Your task to perform on an android device: Add bose soundlink mini to the cart on ebay.com, then select checkout. Image 0: 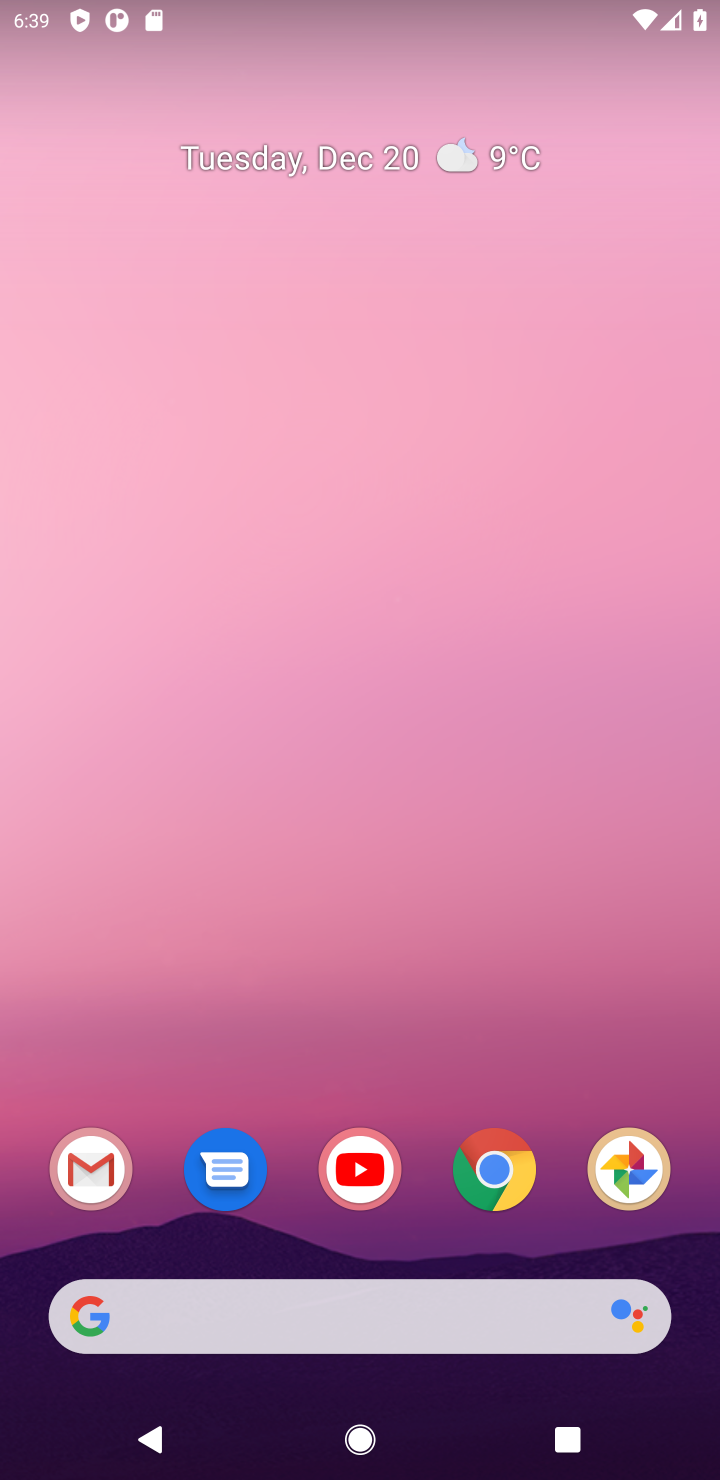
Step 0: click (482, 1166)
Your task to perform on an android device: Add bose soundlink mini to the cart on ebay.com, then select checkout. Image 1: 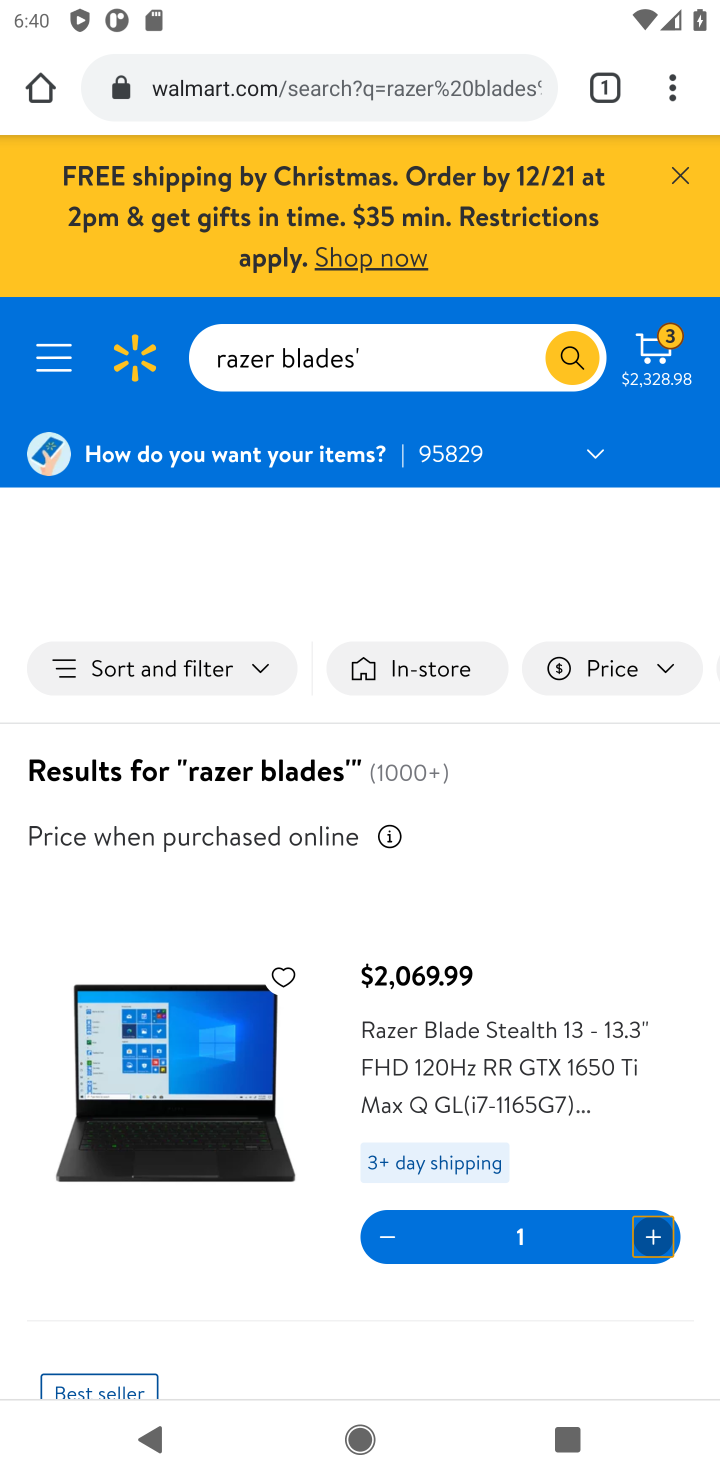
Step 1: click (369, 90)
Your task to perform on an android device: Add bose soundlink mini to the cart on ebay.com, then select checkout. Image 2: 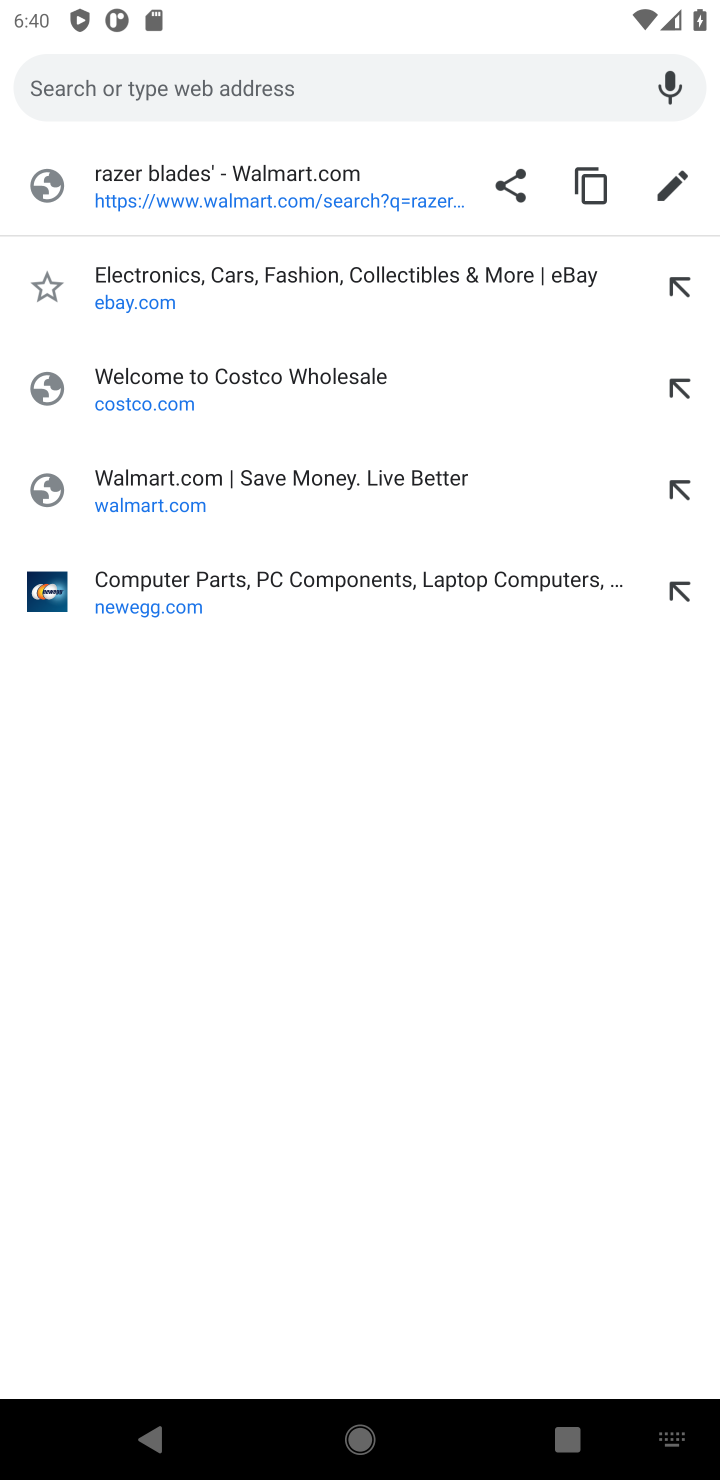
Step 2: click (313, 275)
Your task to perform on an android device: Add bose soundlink mini to the cart on ebay.com, then select checkout. Image 3: 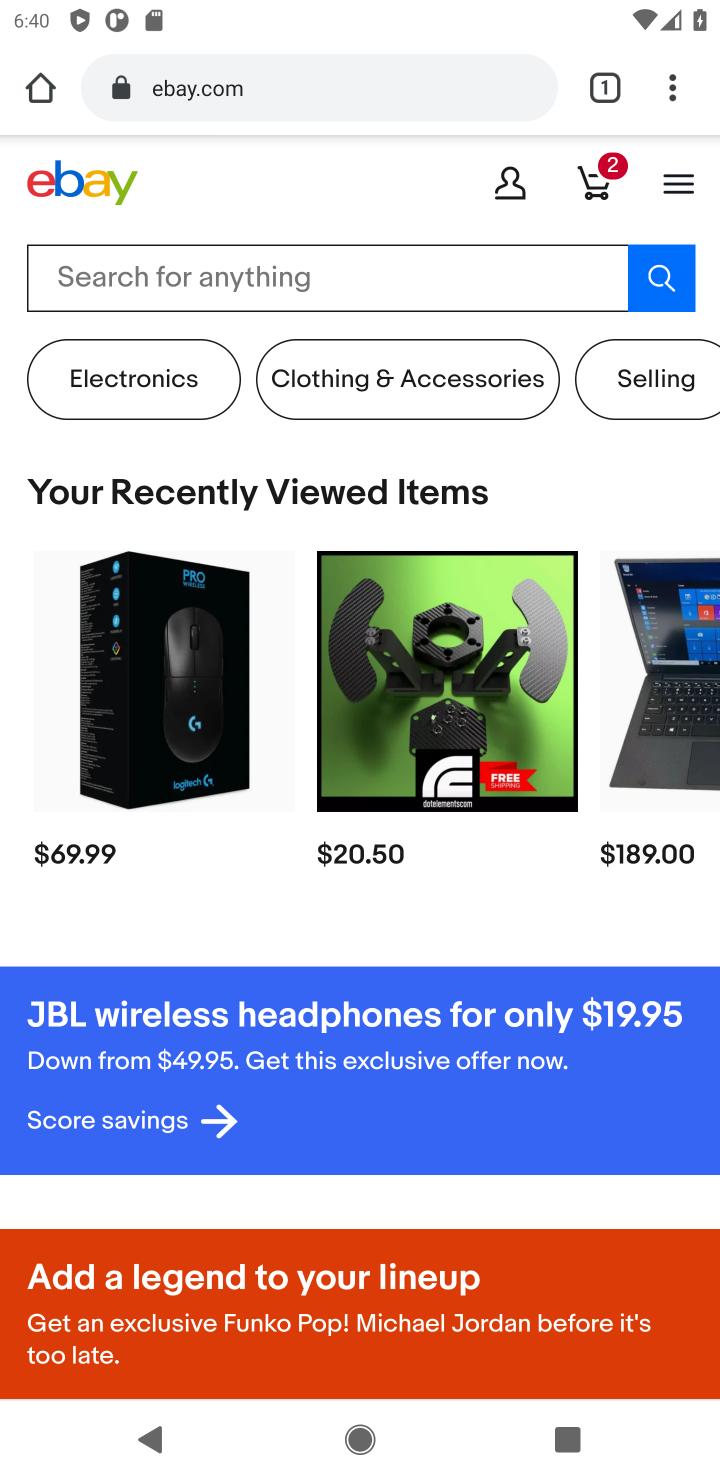
Step 3: click (314, 287)
Your task to perform on an android device: Add bose soundlink mini to the cart on ebay.com, then select checkout. Image 4: 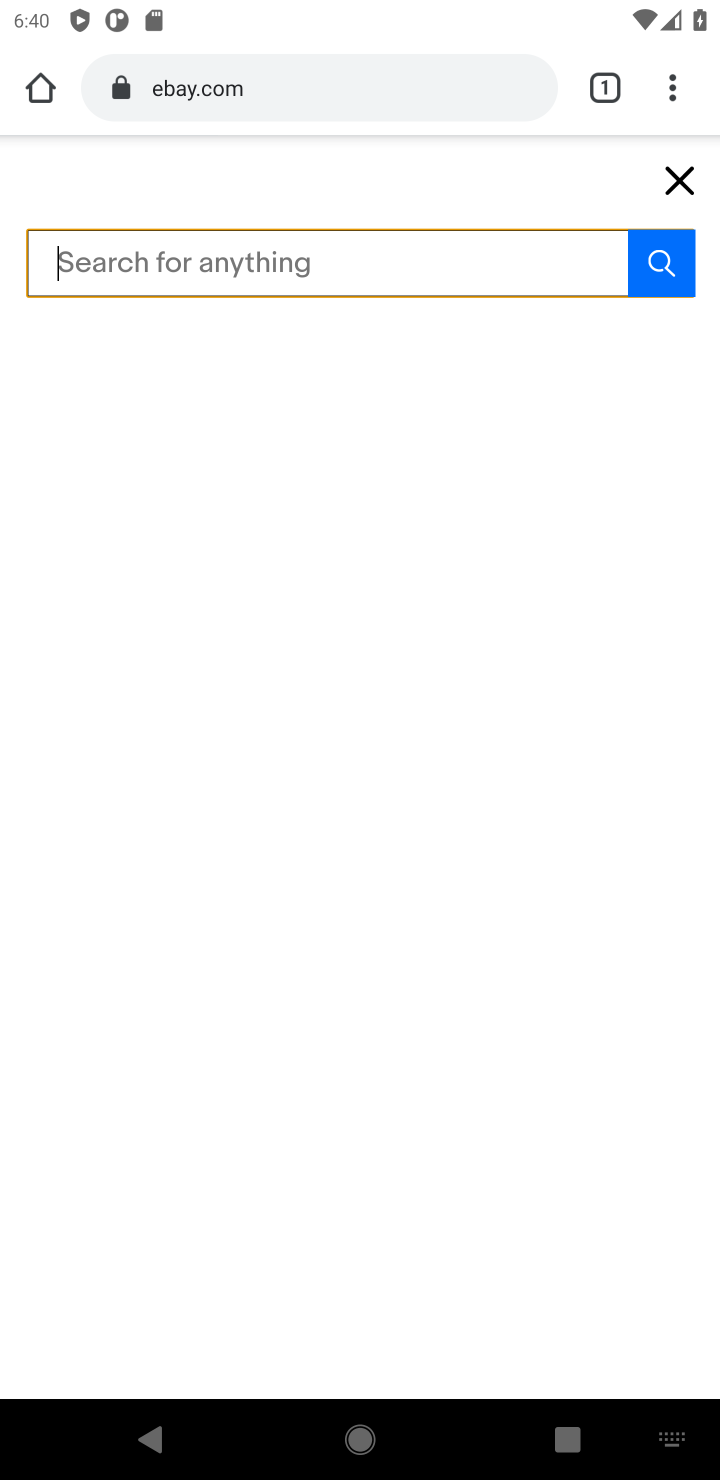
Step 4: type "bose sound link mini"
Your task to perform on an android device: Add bose soundlink mini to the cart on ebay.com, then select checkout. Image 5: 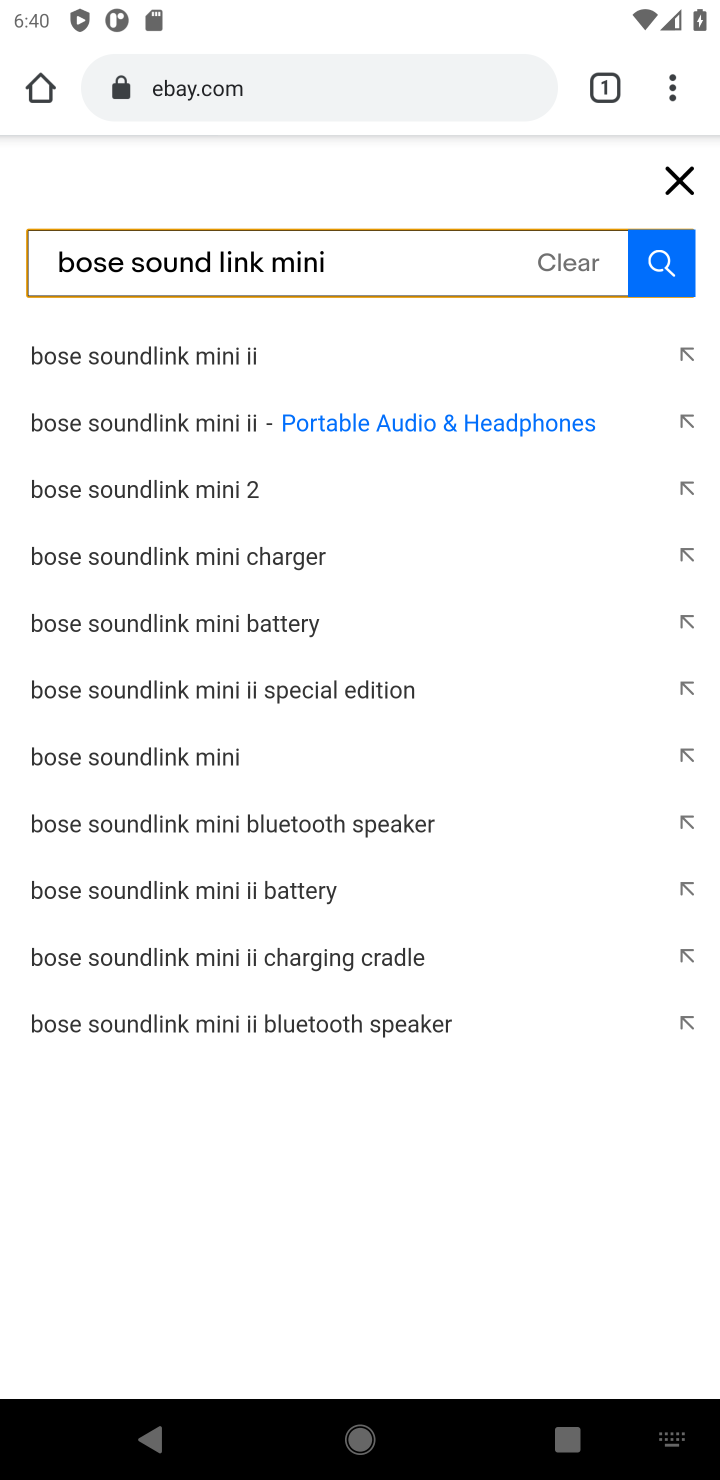
Step 5: click (674, 275)
Your task to perform on an android device: Add bose soundlink mini to the cart on ebay.com, then select checkout. Image 6: 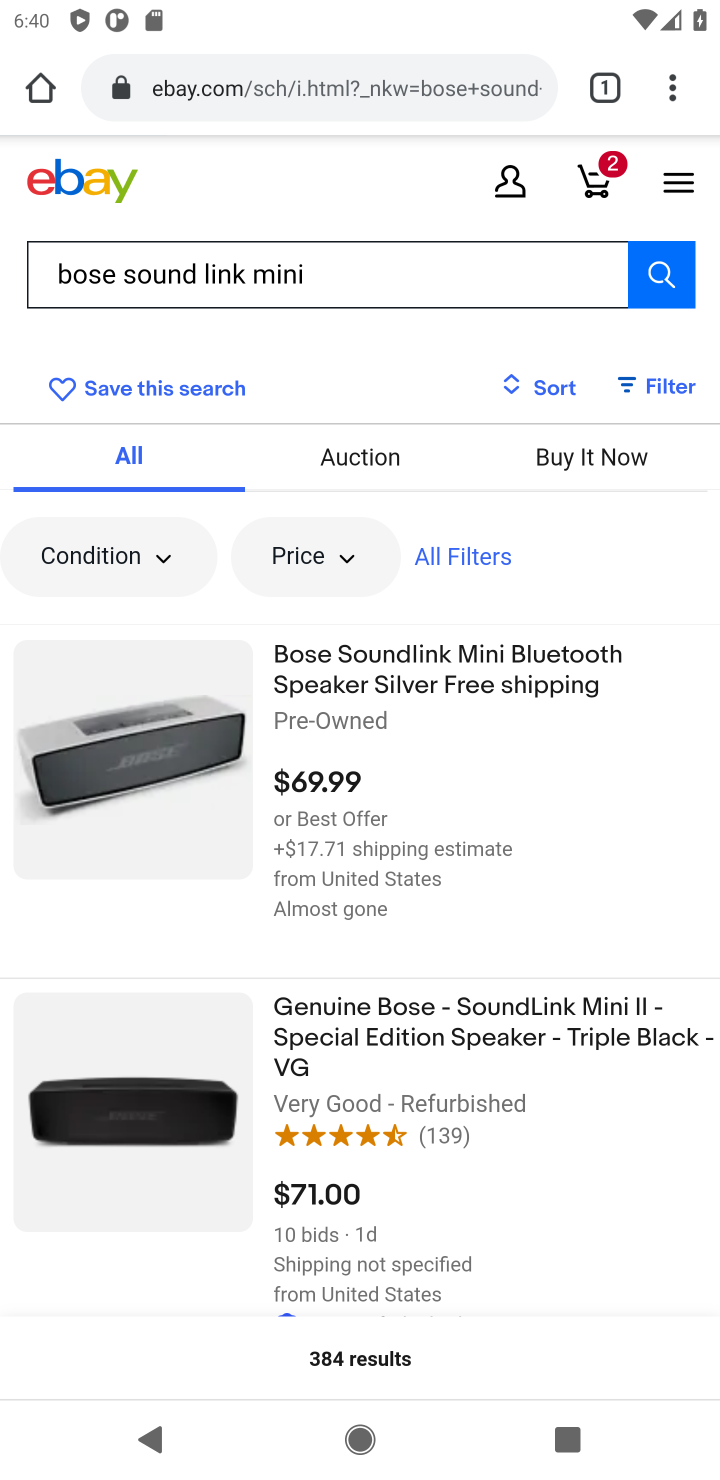
Step 6: click (469, 717)
Your task to perform on an android device: Add bose soundlink mini to the cart on ebay.com, then select checkout. Image 7: 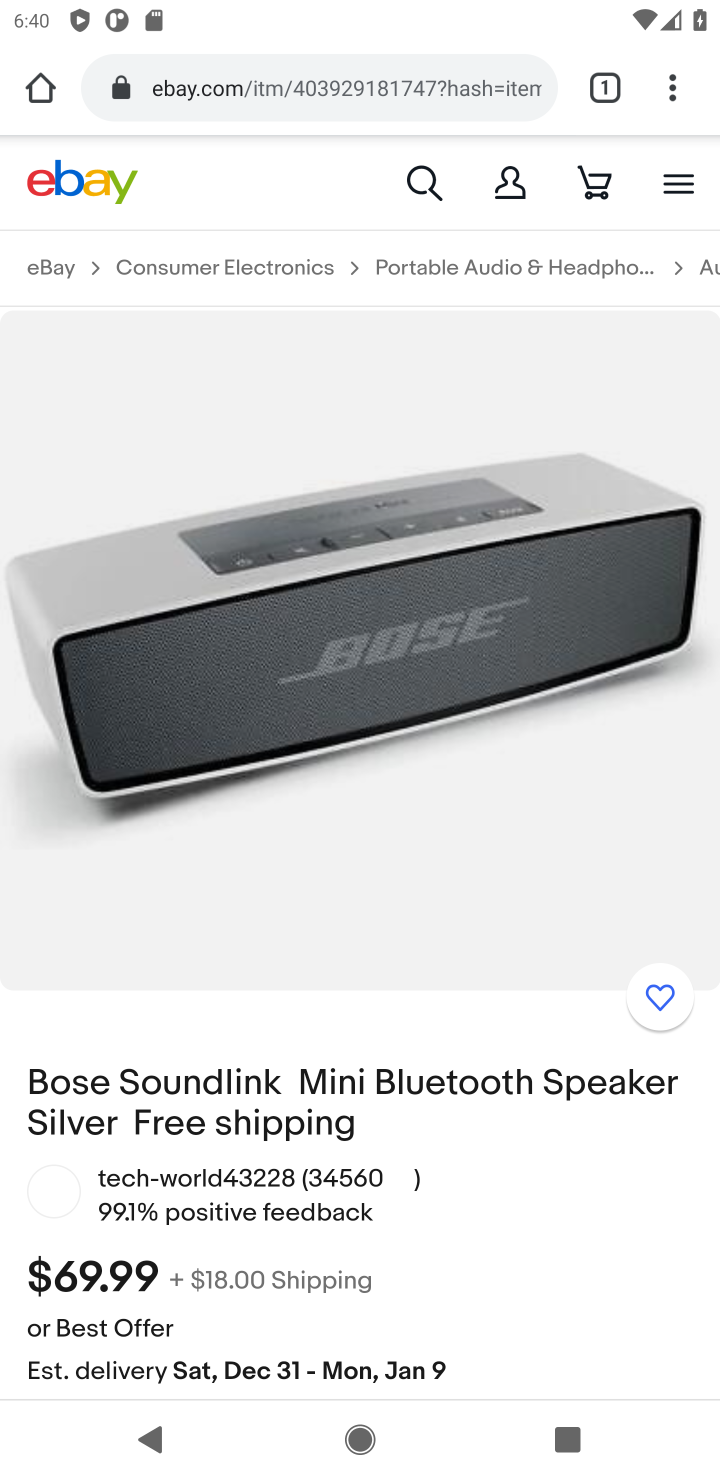
Step 7: drag from (465, 1221) to (324, 636)
Your task to perform on an android device: Add bose soundlink mini to the cart on ebay.com, then select checkout. Image 8: 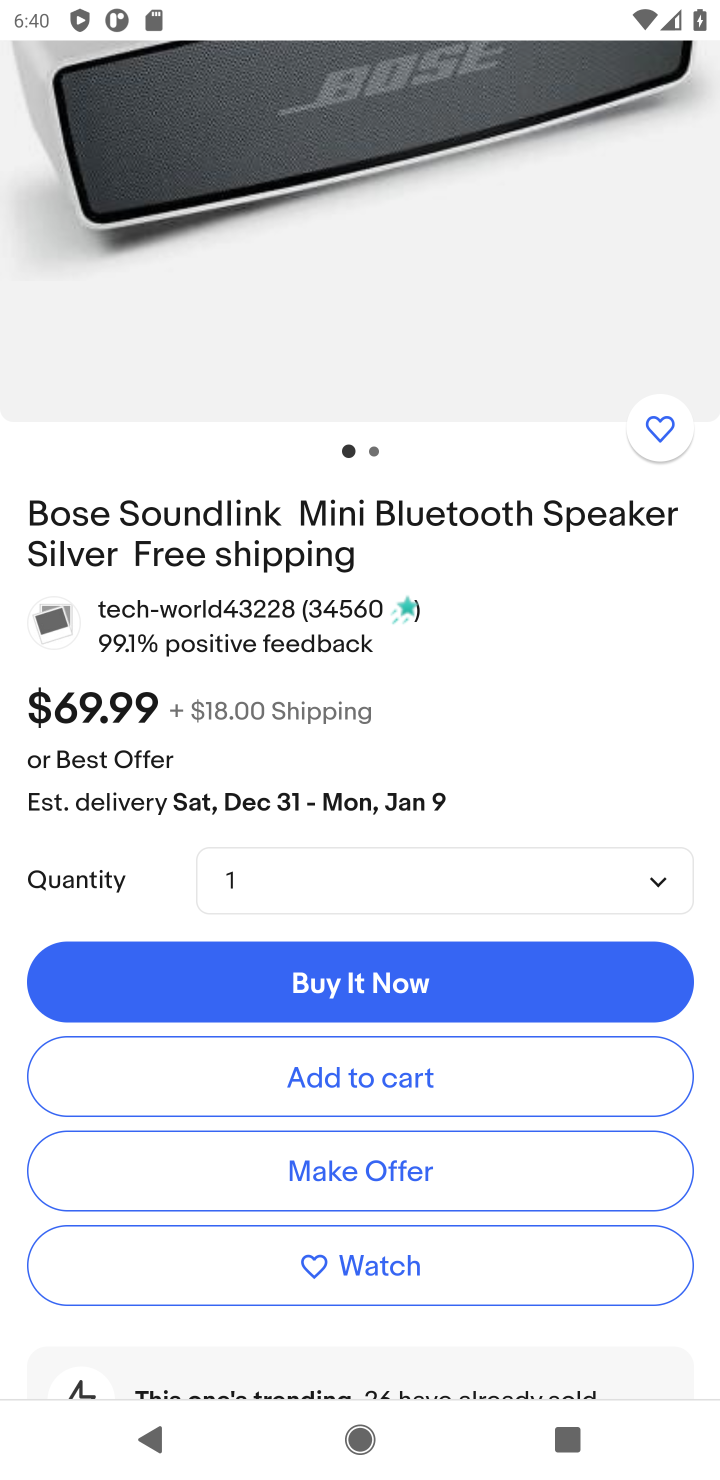
Step 8: click (372, 1084)
Your task to perform on an android device: Add bose soundlink mini to the cart on ebay.com, then select checkout. Image 9: 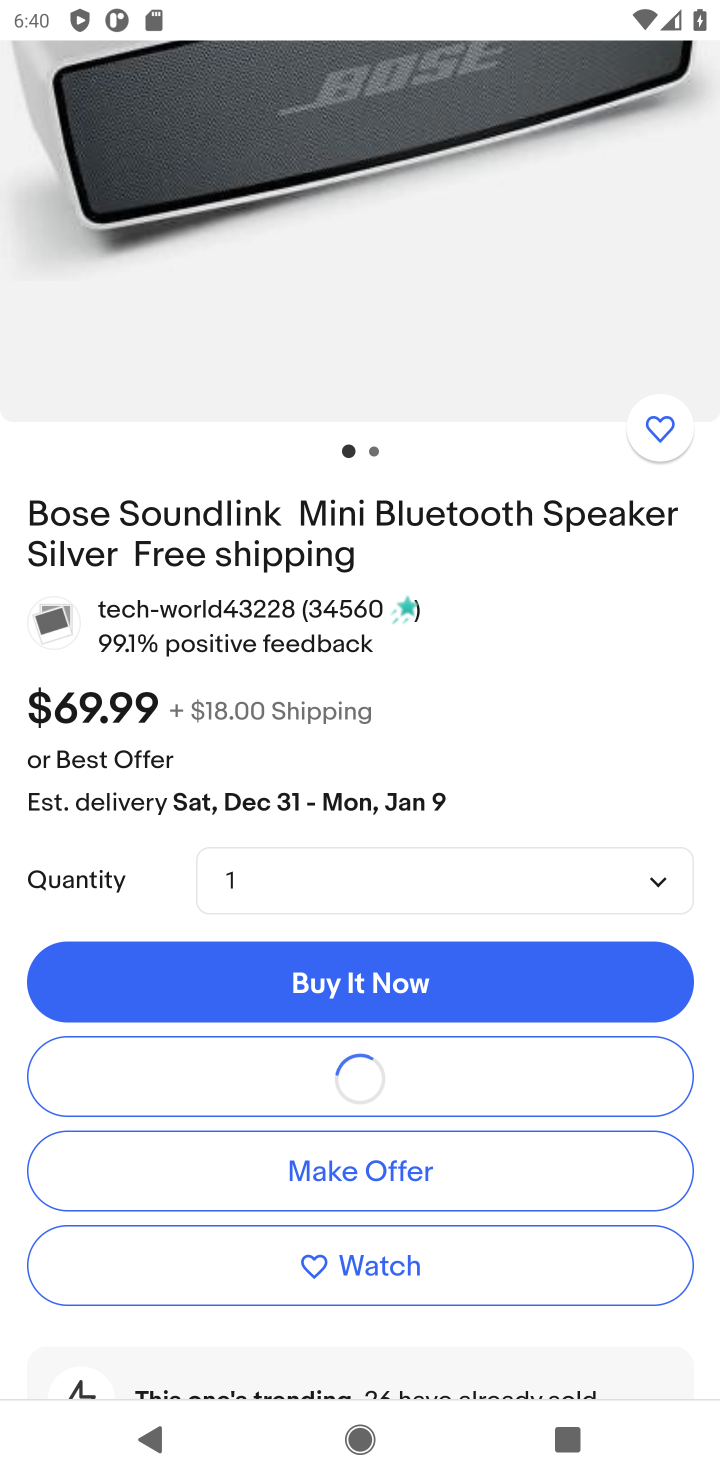
Step 9: task complete